Your task to perform on an android device: change timer sound Image 0: 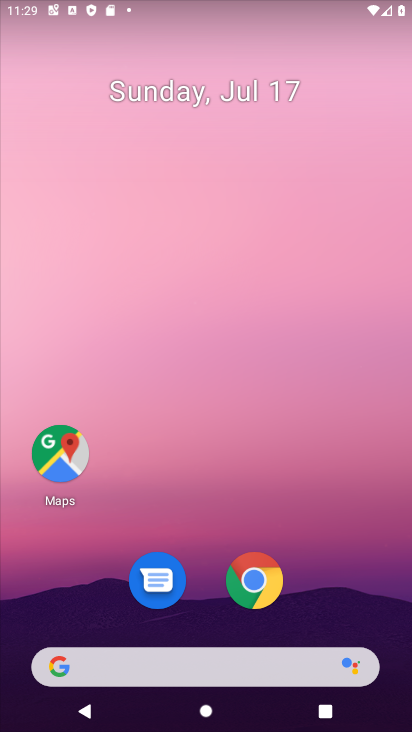
Step 0: drag from (196, 667) to (202, 280)
Your task to perform on an android device: change timer sound Image 1: 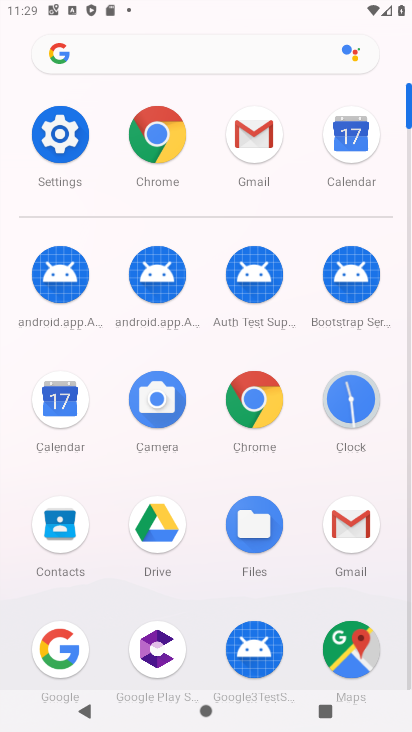
Step 1: click (359, 418)
Your task to perform on an android device: change timer sound Image 2: 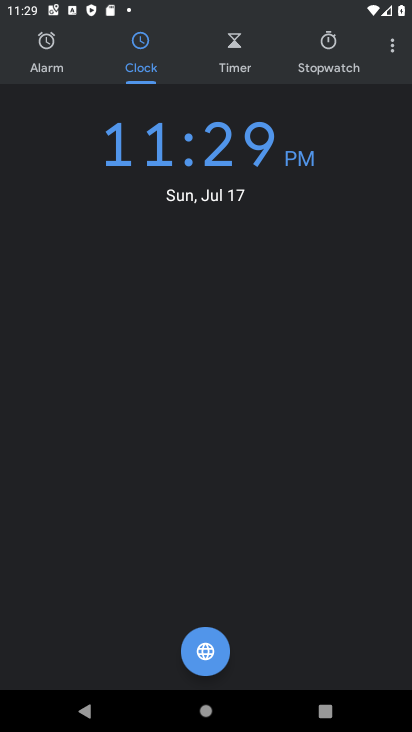
Step 2: click (392, 52)
Your task to perform on an android device: change timer sound Image 3: 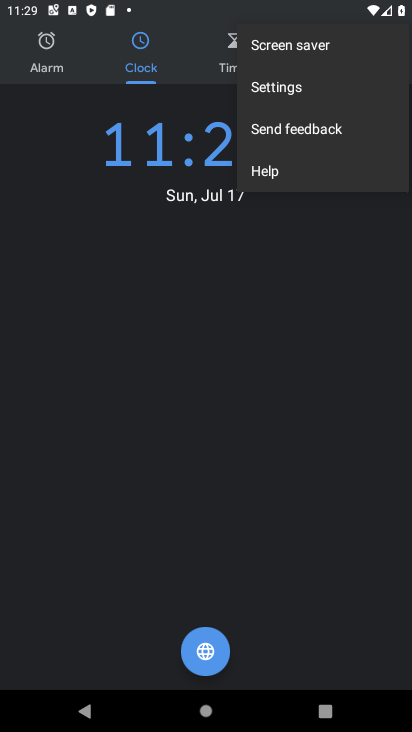
Step 3: click (267, 93)
Your task to perform on an android device: change timer sound Image 4: 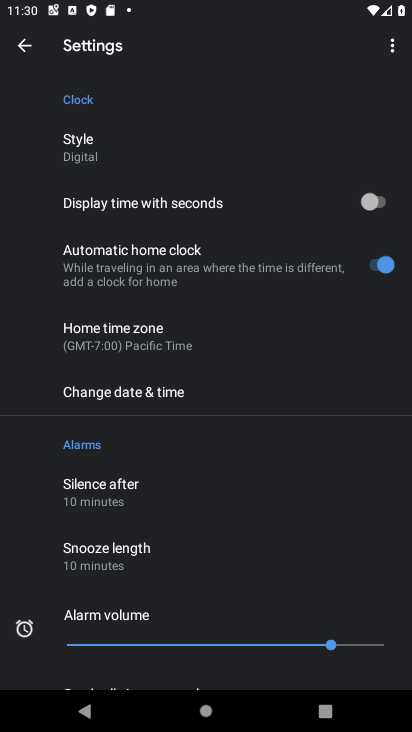
Step 4: drag from (161, 524) to (161, 346)
Your task to perform on an android device: change timer sound Image 5: 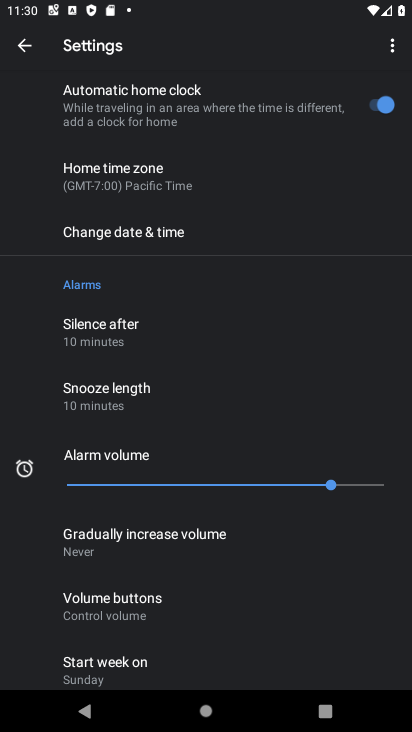
Step 5: drag from (158, 590) to (185, 325)
Your task to perform on an android device: change timer sound Image 6: 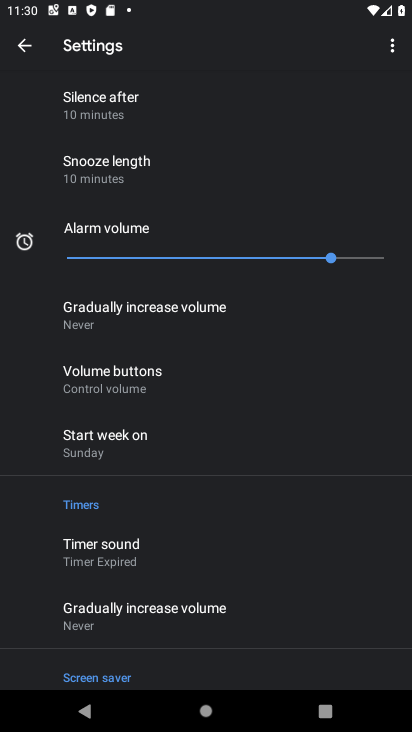
Step 6: click (120, 556)
Your task to perform on an android device: change timer sound Image 7: 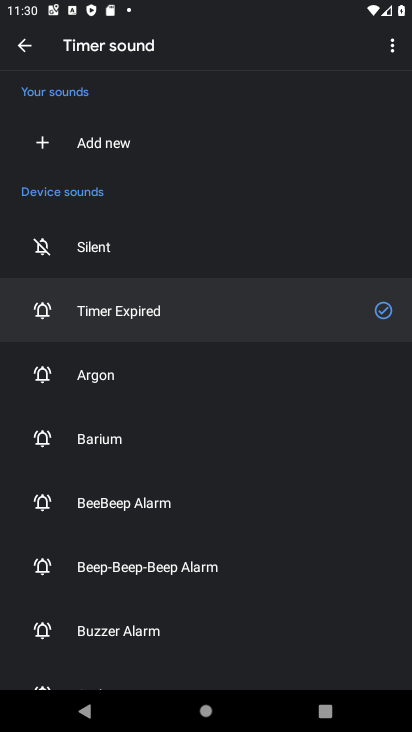
Step 7: click (132, 390)
Your task to perform on an android device: change timer sound Image 8: 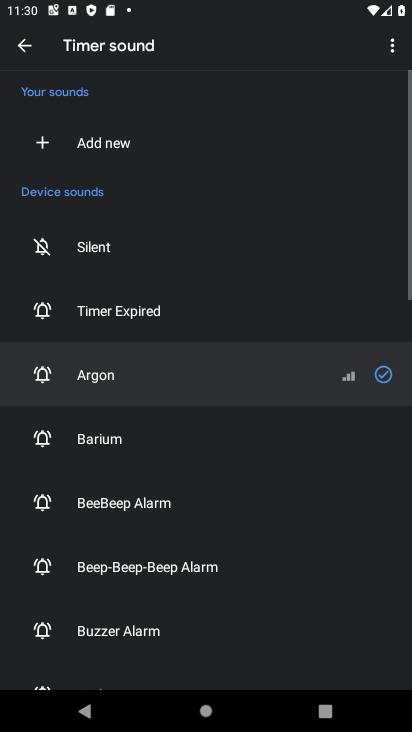
Step 8: task complete